Your task to perform on an android device: add a contact Image 0: 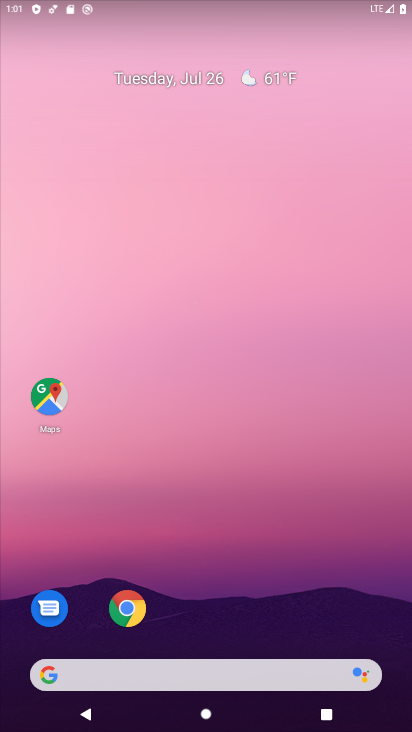
Step 0: drag from (285, 630) to (276, 96)
Your task to perform on an android device: add a contact Image 1: 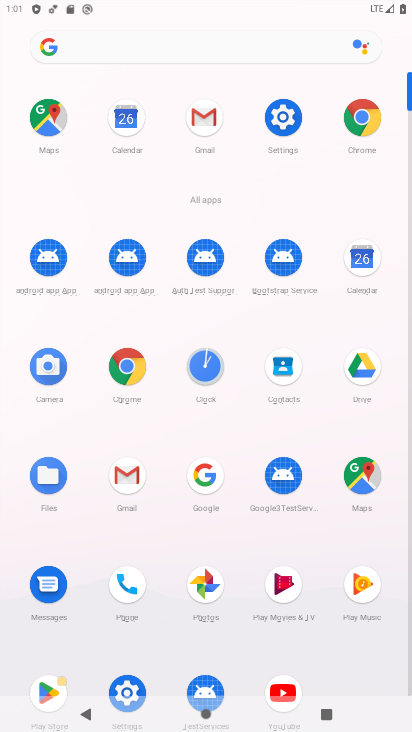
Step 1: click (289, 373)
Your task to perform on an android device: add a contact Image 2: 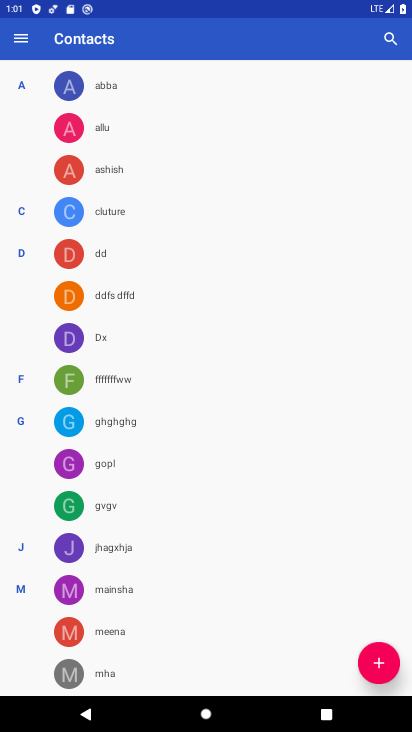
Step 2: click (384, 650)
Your task to perform on an android device: add a contact Image 3: 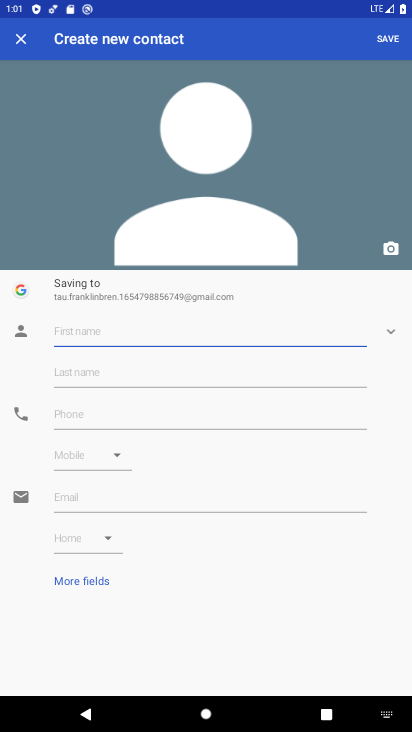
Step 3: click (243, 333)
Your task to perform on an android device: add a contact Image 4: 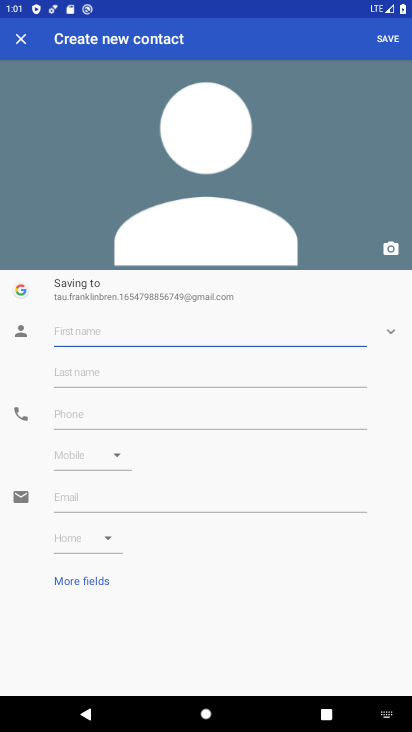
Step 4: type "vgvvjvj"
Your task to perform on an android device: add a contact Image 5: 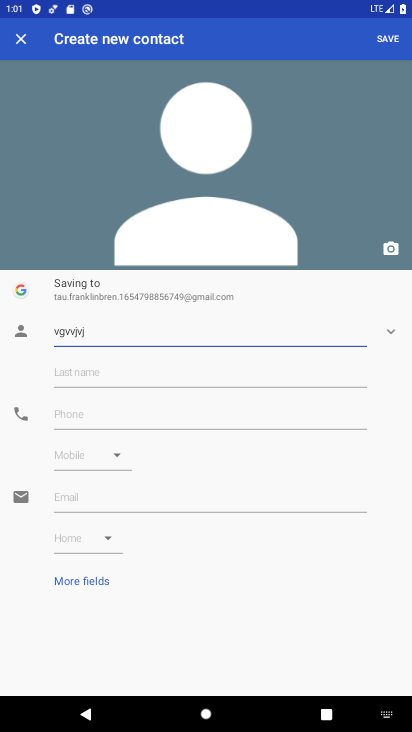
Step 5: click (303, 407)
Your task to perform on an android device: add a contact Image 6: 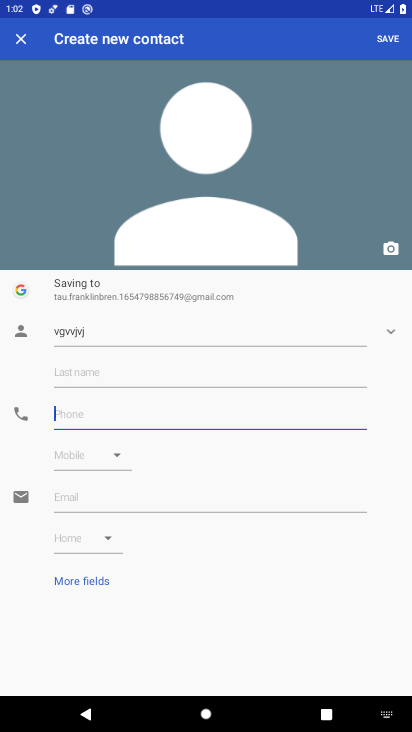
Step 6: type "786796799"
Your task to perform on an android device: add a contact Image 7: 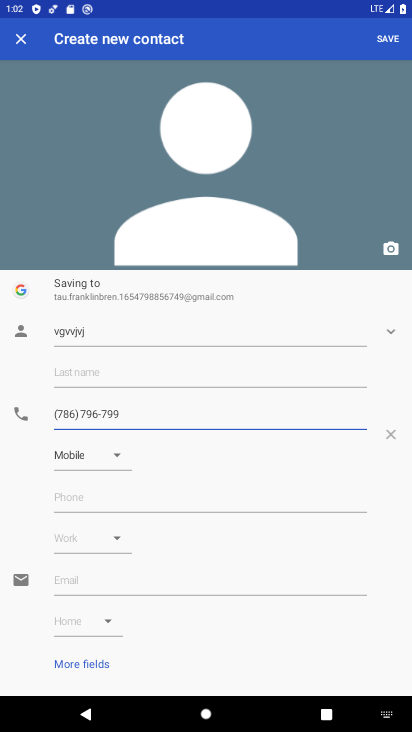
Step 7: click (391, 29)
Your task to perform on an android device: add a contact Image 8: 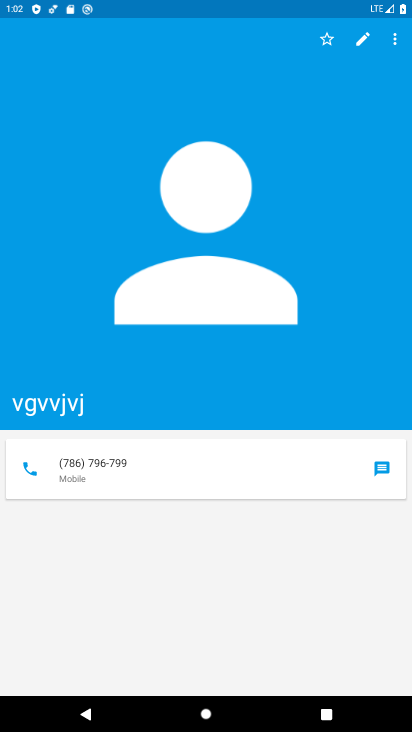
Step 8: task complete